Your task to perform on an android device: turn off priority inbox in the gmail app Image 0: 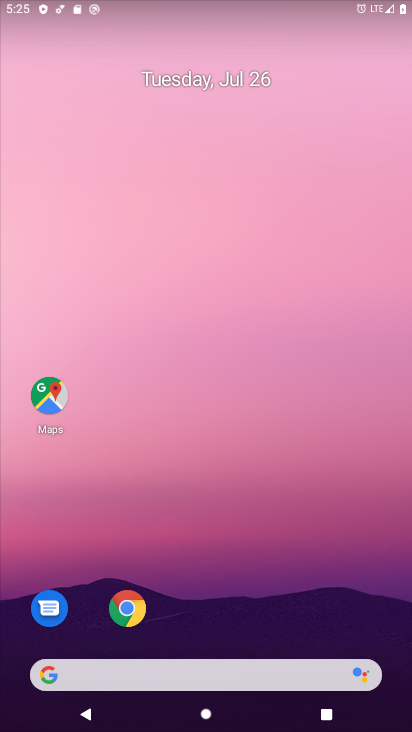
Step 0: drag from (357, 658) to (246, 12)
Your task to perform on an android device: turn off priority inbox in the gmail app Image 1: 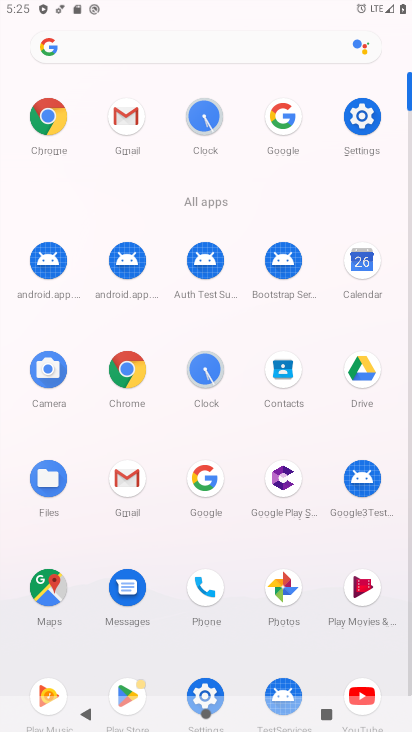
Step 1: click (130, 472)
Your task to perform on an android device: turn off priority inbox in the gmail app Image 2: 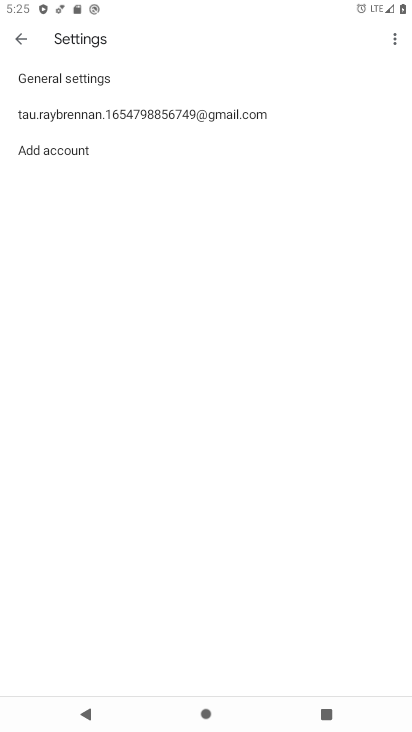
Step 2: click (207, 106)
Your task to perform on an android device: turn off priority inbox in the gmail app Image 3: 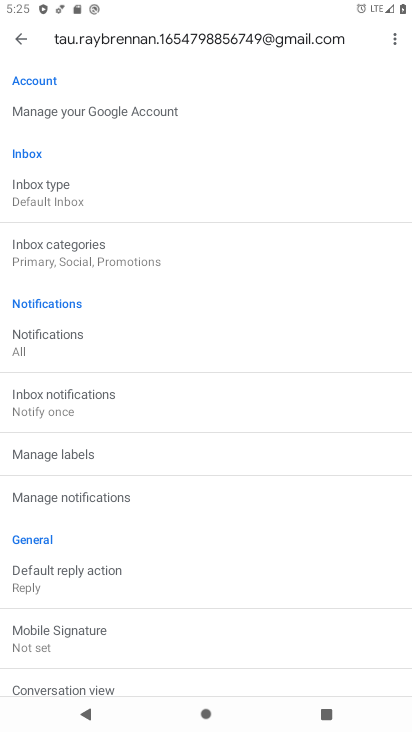
Step 3: click (79, 186)
Your task to perform on an android device: turn off priority inbox in the gmail app Image 4: 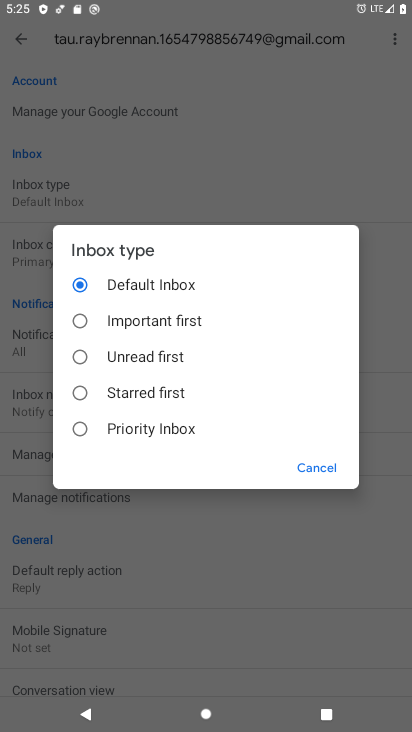
Step 4: task complete